Your task to perform on an android device: Show me recent news Image 0: 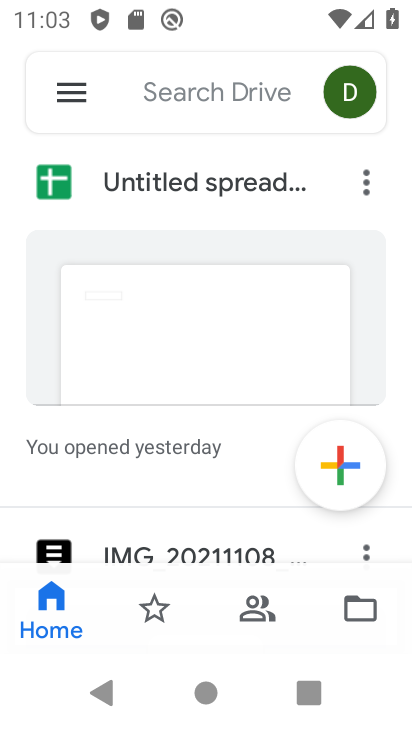
Step 0: press home button
Your task to perform on an android device: Show me recent news Image 1: 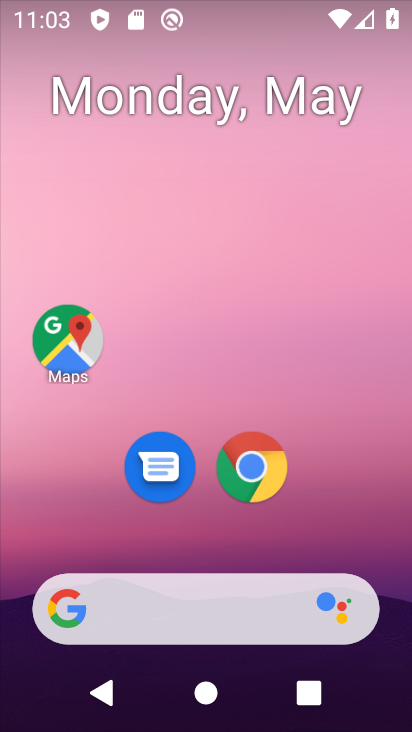
Step 1: click (263, 622)
Your task to perform on an android device: Show me recent news Image 2: 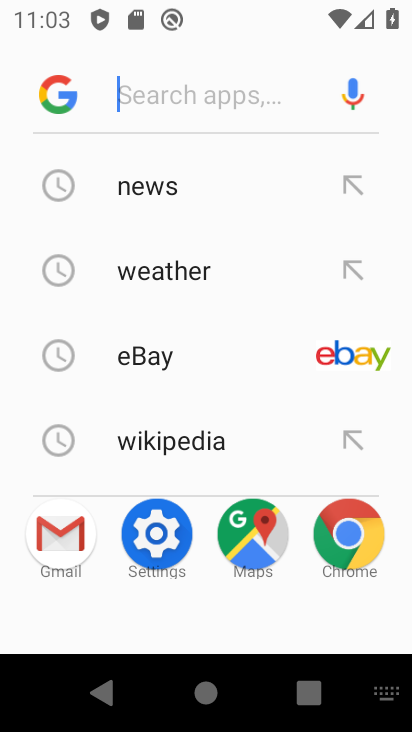
Step 2: click (169, 202)
Your task to perform on an android device: Show me recent news Image 3: 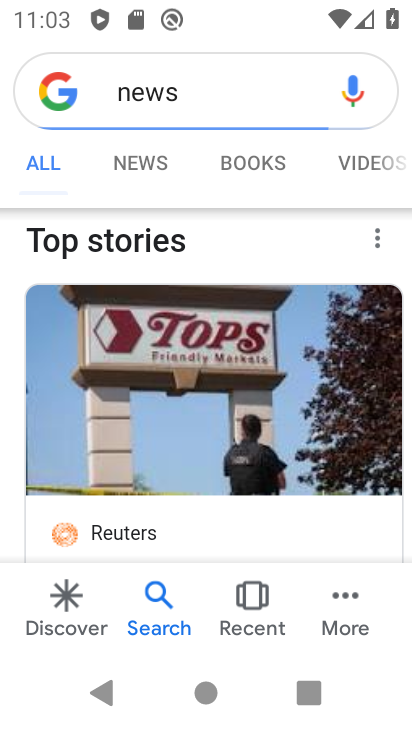
Step 3: task complete